Your task to perform on an android device: Search for seafood restaurants on Google Maps Image 0: 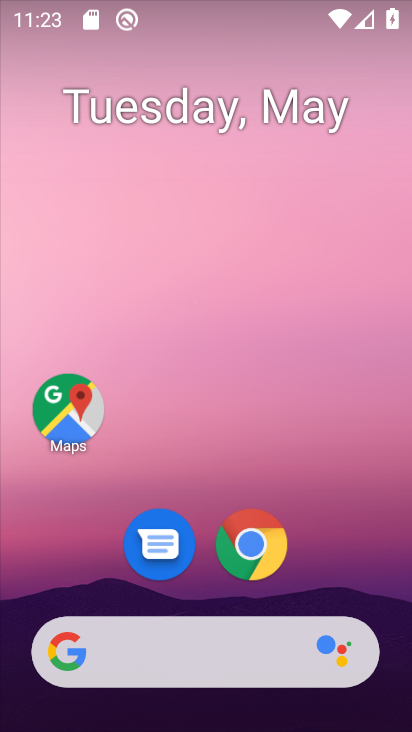
Step 0: drag from (264, 694) to (207, 121)
Your task to perform on an android device: Search for seafood restaurants on Google Maps Image 1: 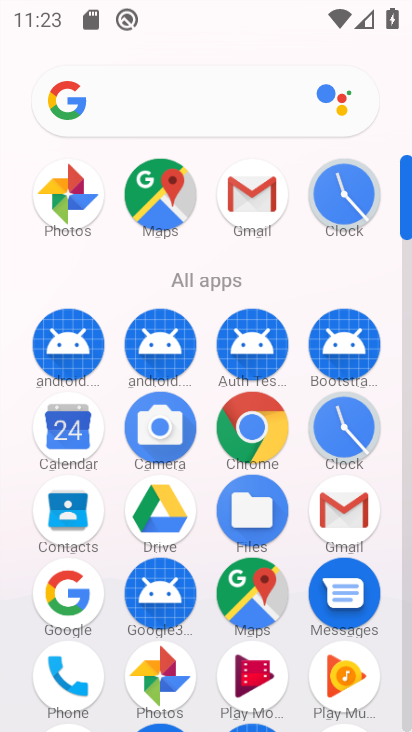
Step 1: drag from (241, 692) to (210, 19)
Your task to perform on an android device: Search for seafood restaurants on Google Maps Image 2: 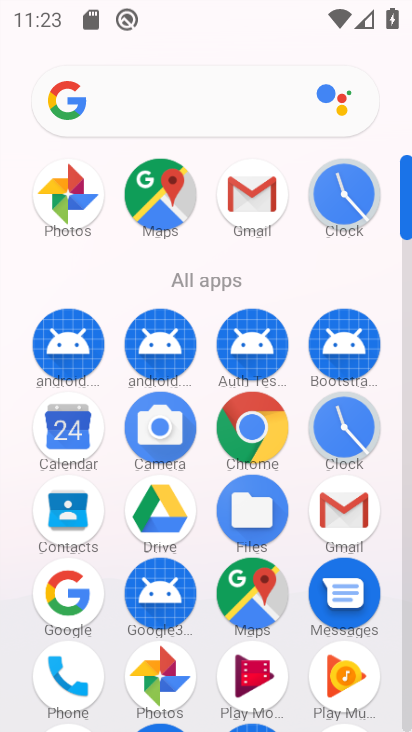
Step 2: click (245, 601)
Your task to perform on an android device: Search for seafood restaurants on Google Maps Image 3: 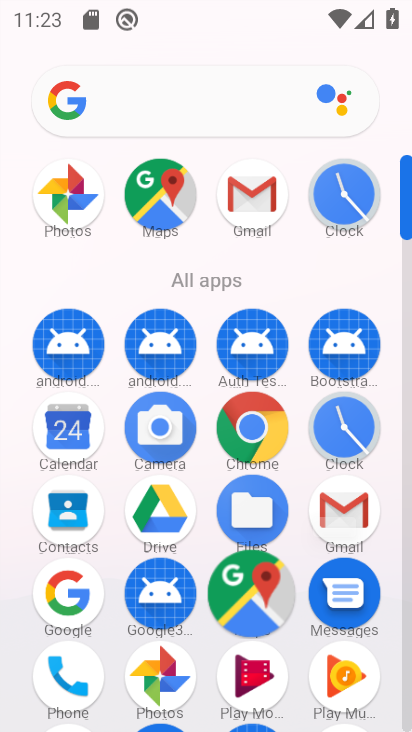
Step 3: click (250, 595)
Your task to perform on an android device: Search for seafood restaurants on Google Maps Image 4: 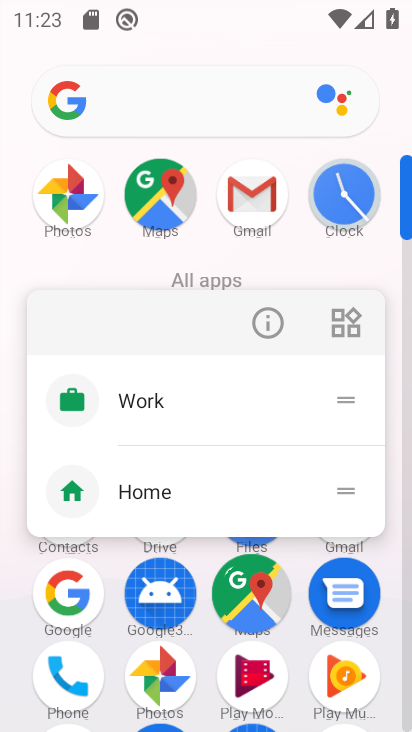
Step 4: click (252, 592)
Your task to perform on an android device: Search for seafood restaurants on Google Maps Image 5: 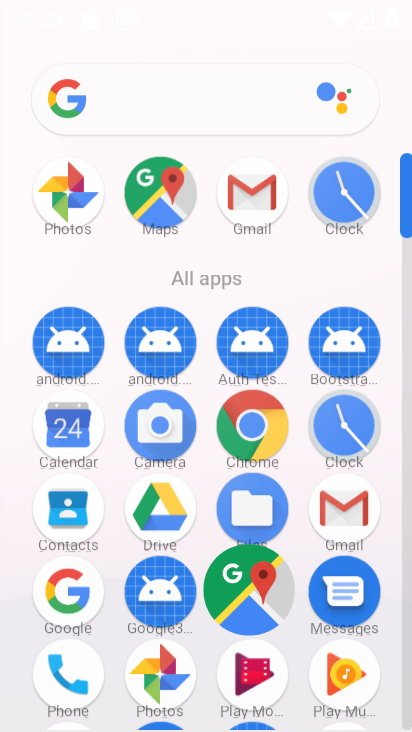
Step 5: click (248, 578)
Your task to perform on an android device: Search for seafood restaurants on Google Maps Image 6: 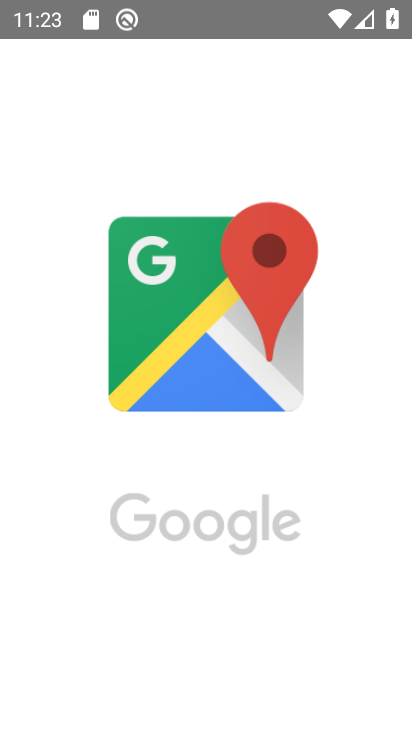
Step 6: click (247, 576)
Your task to perform on an android device: Search for seafood restaurants on Google Maps Image 7: 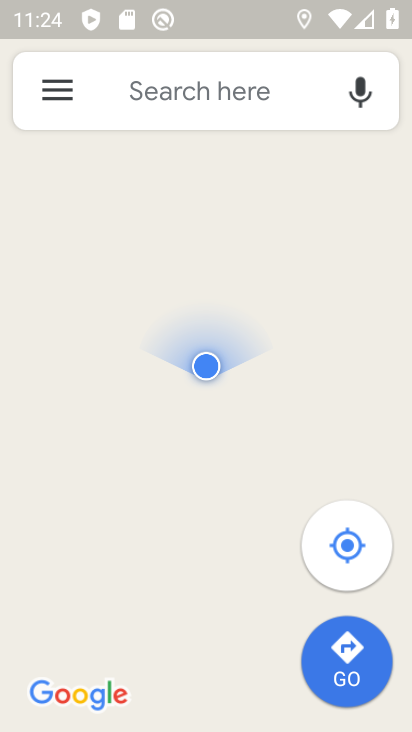
Step 7: click (132, 90)
Your task to perform on an android device: Search for seafood restaurants on Google Maps Image 8: 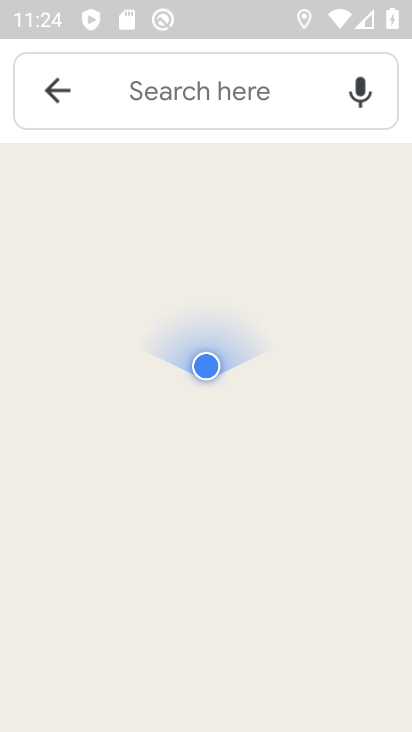
Step 8: click (140, 87)
Your task to perform on an android device: Search for seafood restaurants on Google Maps Image 9: 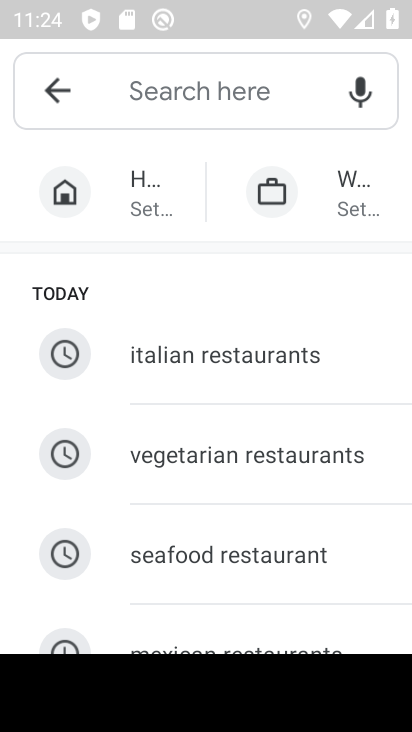
Step 9: click (196, 559)
Your task to perform on an android device: Search for seafood restaurants on Google Maps Image 10: 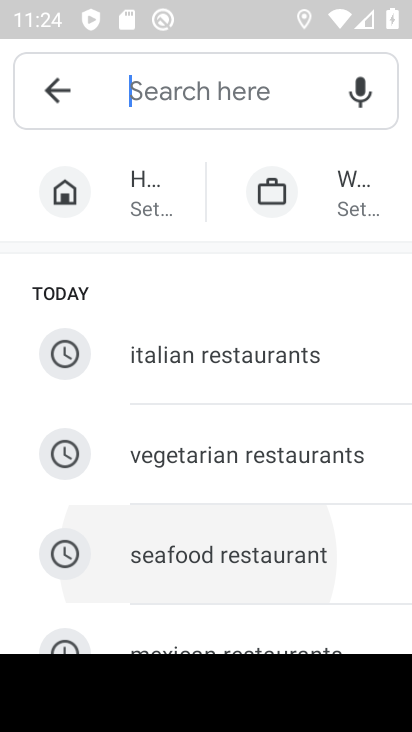
Step 10: click (214, 537)
Your task to perform on an android device: Search for seafood restaurants on Google Maps Image 11: 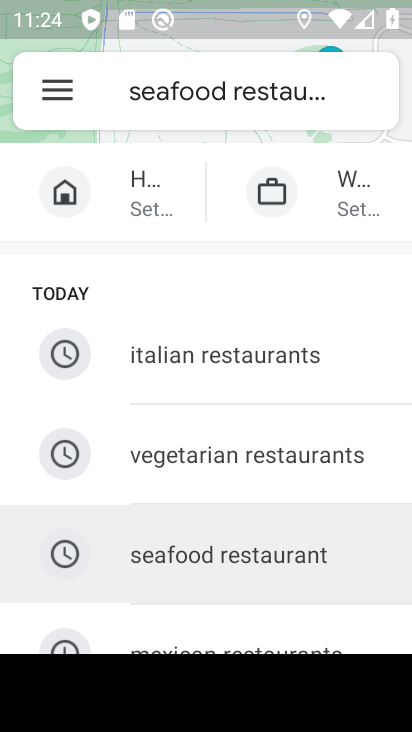
Step 11: click (222, 547)
Your task to perform on an android device: Search for seafood restaurants on Google Maps Image 12: 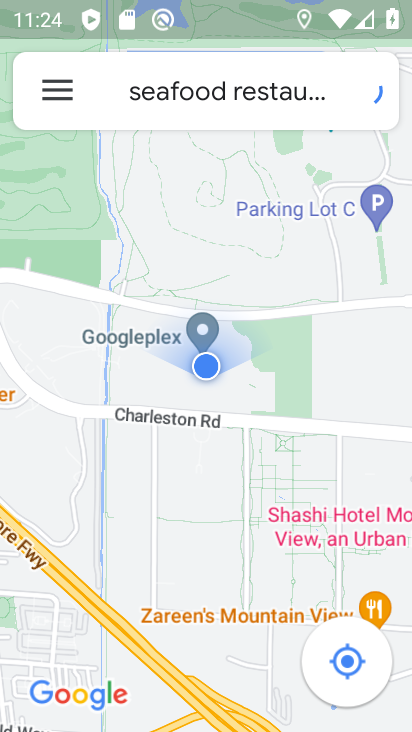
Step 12: click (223, 547)
Your task to perform on an android device: Search for seafood restaurants on Google Maps Image 13: 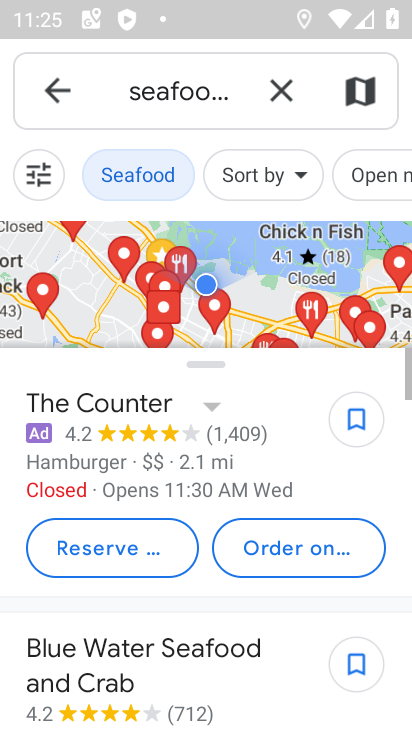
Step 13: task complete